Your task to perform on an android device: Open wifi settings Image 0: 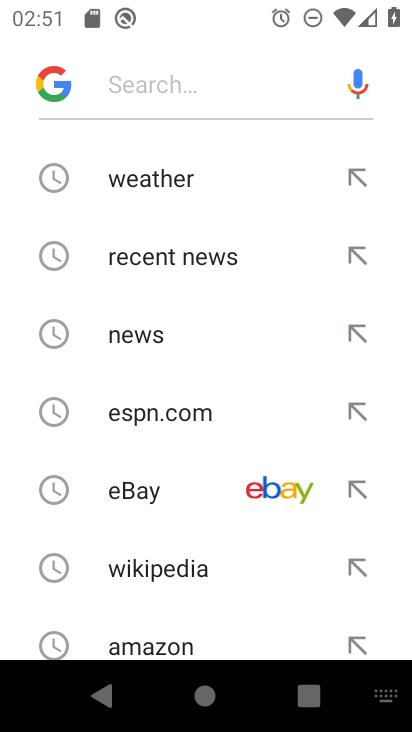
Step 0: press home button
Your task to perform on an android device: Open wifi settings Image 1: 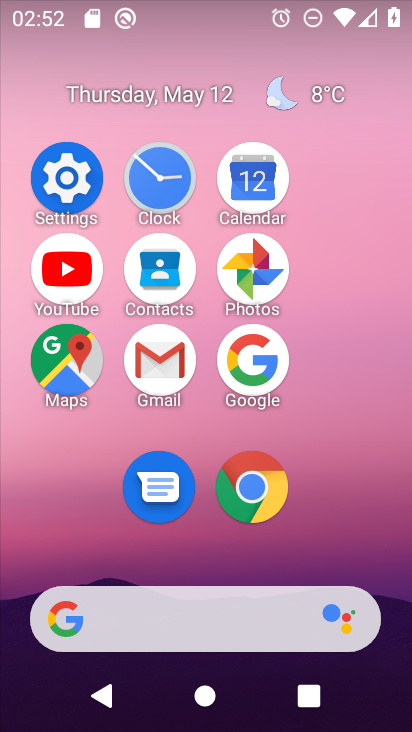
Step 1: click (72, 173)
Your task to perform on an android device: Open wifi settings Image 2: 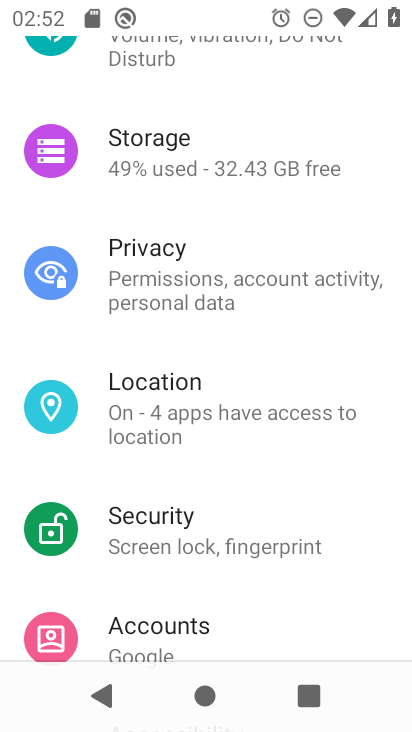
Step 2: drag from (280, 161) to (288, 520)
Your task to perform on an android device: Open wifi settings Image 3: 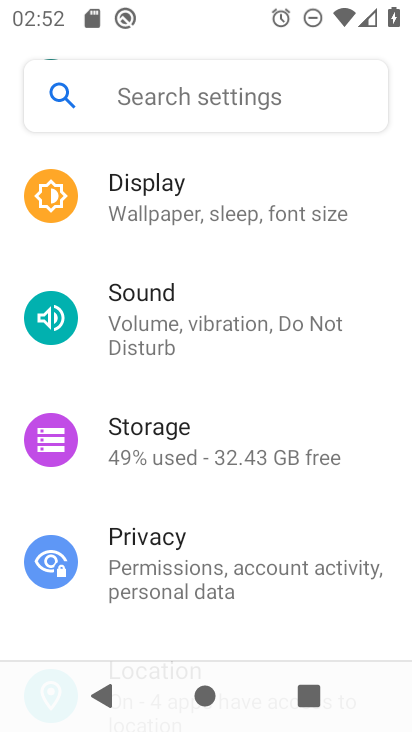
Step 3: drag from (310, 182) to (330, 529)
Your task to perform on an android device: Open wifi settings Image 4: 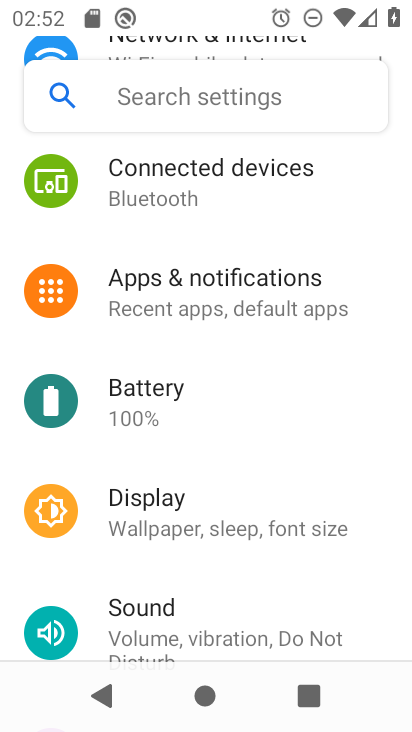
Step 4: drag from (277, 186) to (291, 532)
Your task to perform on an android device: Open wifi settings Image 5: 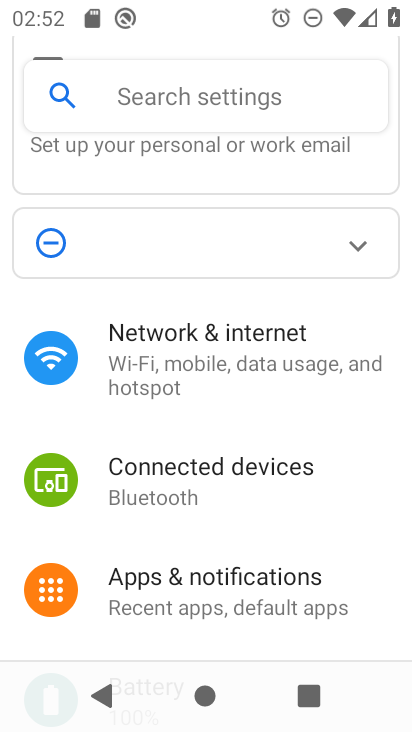
Step 5: click (221, 364)
Your task to perform on an android device: Open wifi settings Image 6: 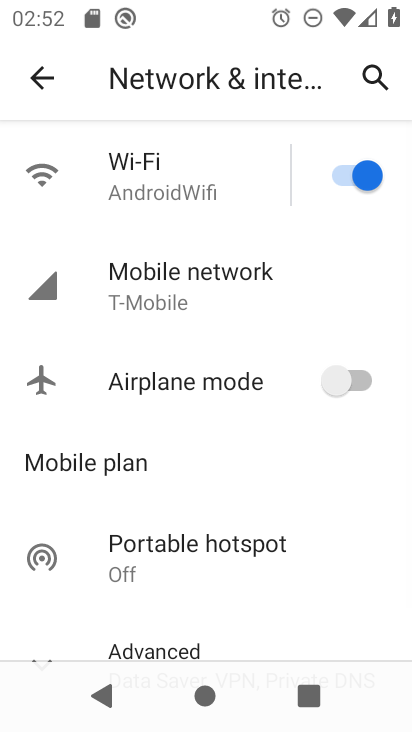
Step 6: click (184, 176)
Your task to perform on an android device: Open wifi settings Image 7: 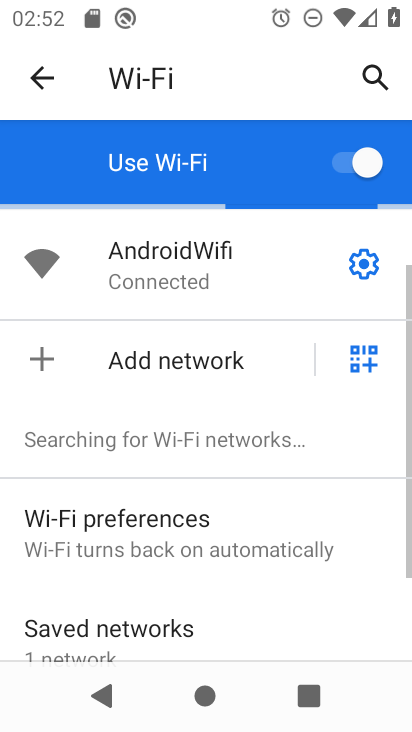
Step 7: click (358, 266)
Your task to perform on an android device: Open wifi settings Image 8: 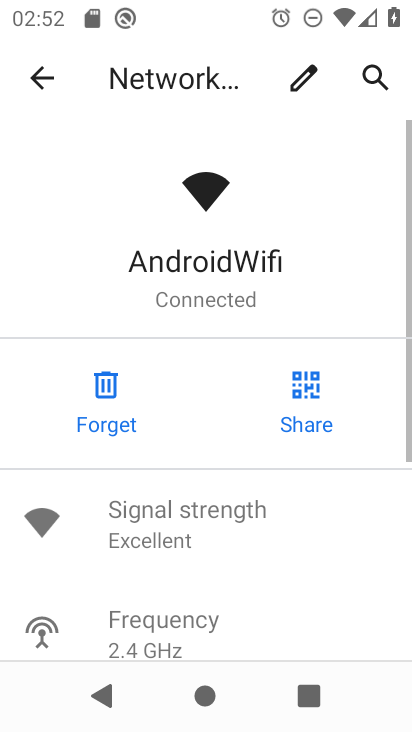
Step 8: task complete